Your task to perform on an android device: check android version Image 0: 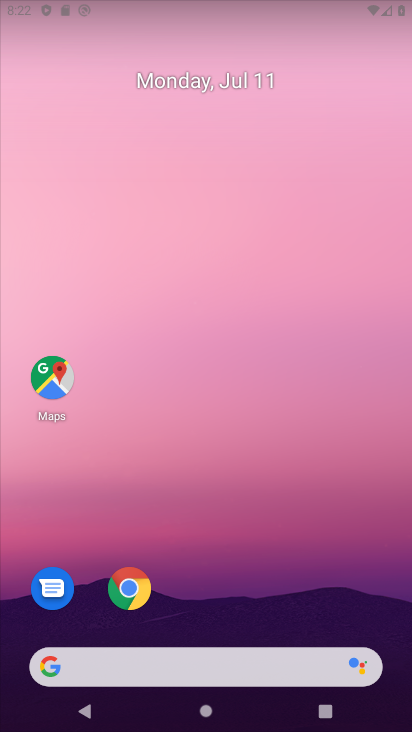
Step 0: drag from (134, 720) to (325, 125)
Your task to perform on an android device: check android version Image 1: 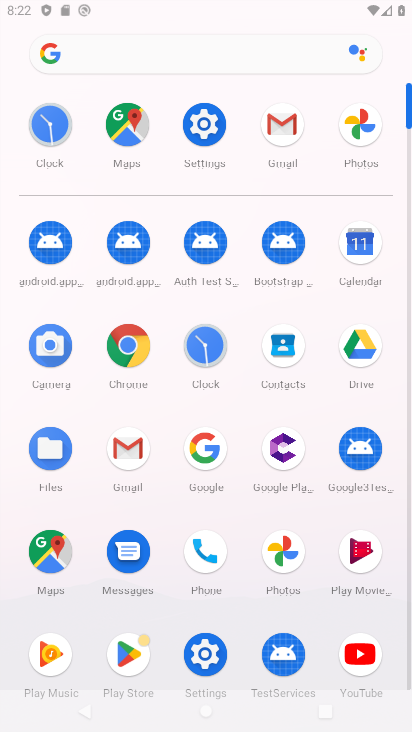
Step 1: click (173, 131)
Your task to perform on an android device: check android version Image 2: 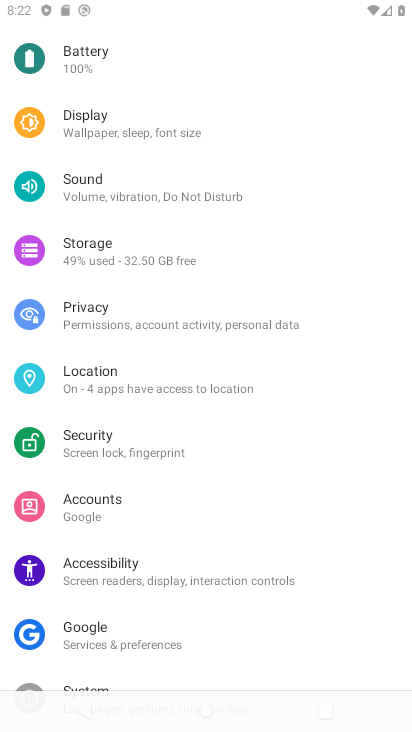
Step 2: drag from (301, 653) to (349, 90)
Your task to perform on an android device: check android version Image 3: 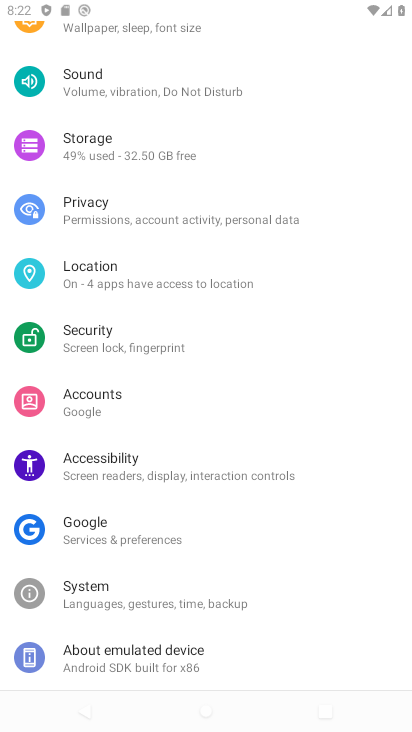
Step 3: click (173, 657)
Your task to perform on an android device: check android version Image 4: 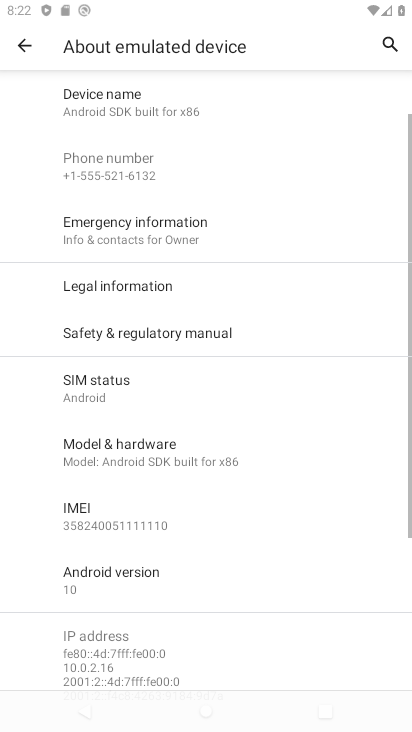
Step 4: task complete